Your task to perform on an android device: open app "Instagram" (install if not already installed) and go to login screen Image 0: 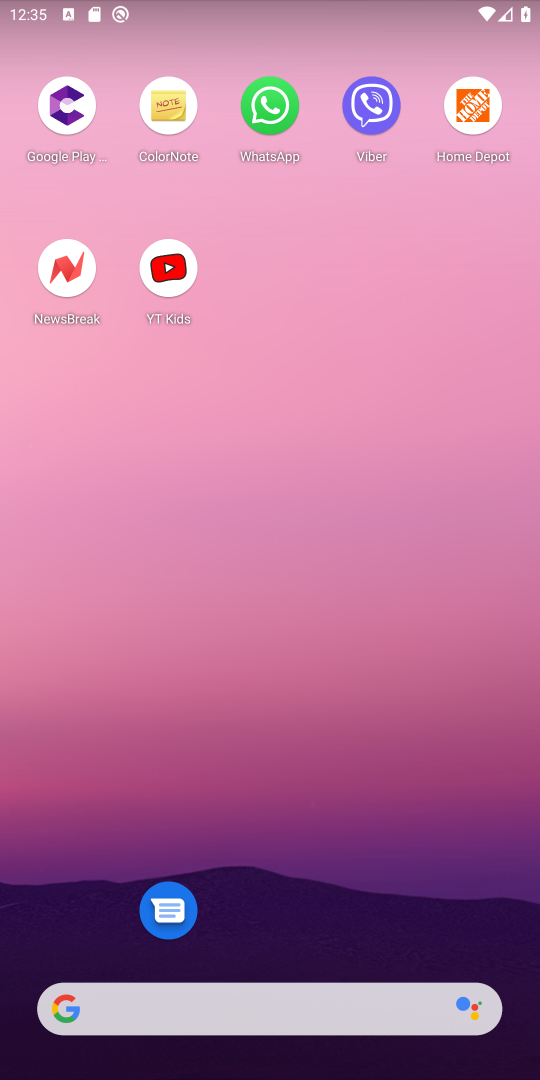
Step 0: drag from (293, 876) to (315, 62)
Your task to perform on an android device: open app "Instagram" (install if not already installed) and go to login screen Image 1: 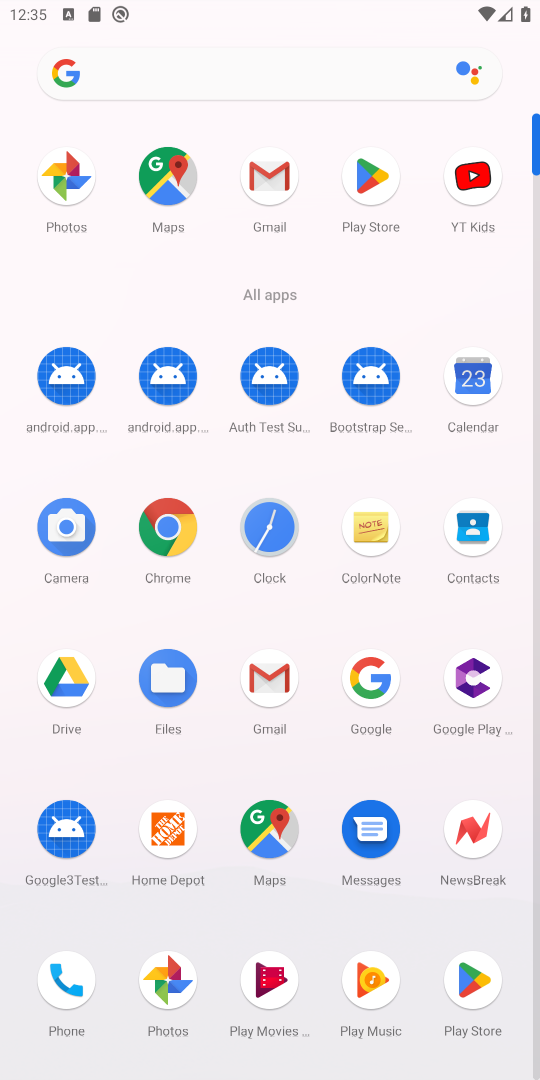
Step 1: click (368, 207)
Your task to perform on an android device: open app "Instagram" (install if not already installed) and go to login screen Image 2: 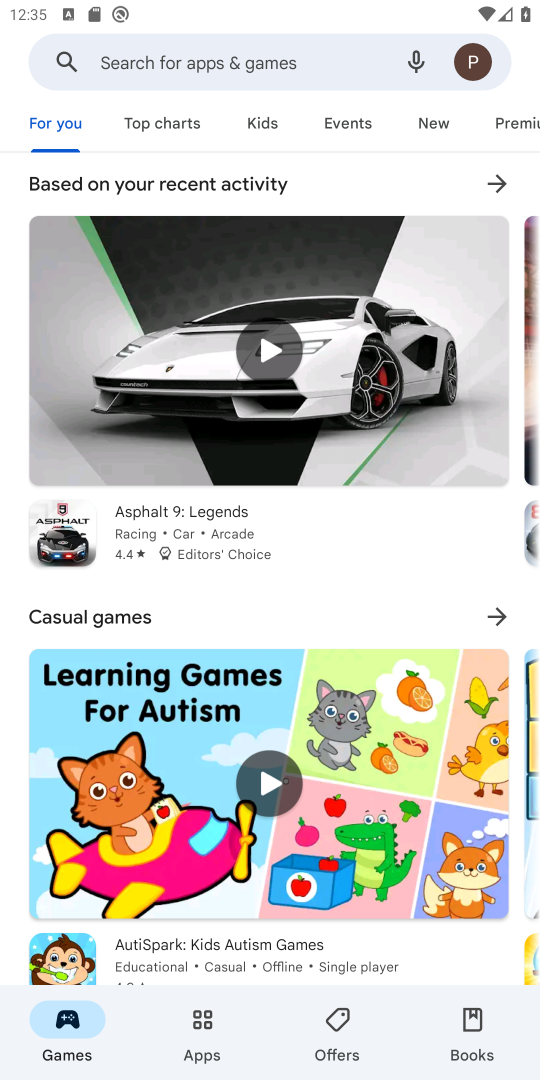
Step 2: click (282, 78)
Your task to perform on an android device: open app "Instagram" (install if not already installed) and go to login screen Image 3: 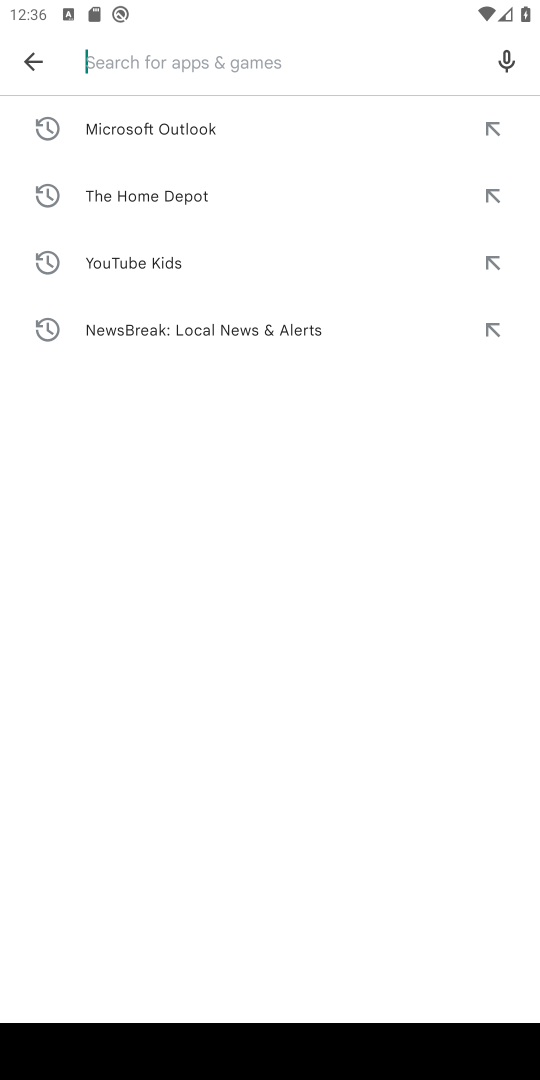
Step 3: type "Instagram"
Your task to perform on an android device: open app "Instagram" (install if not already installed) and go to login screen Image 4: 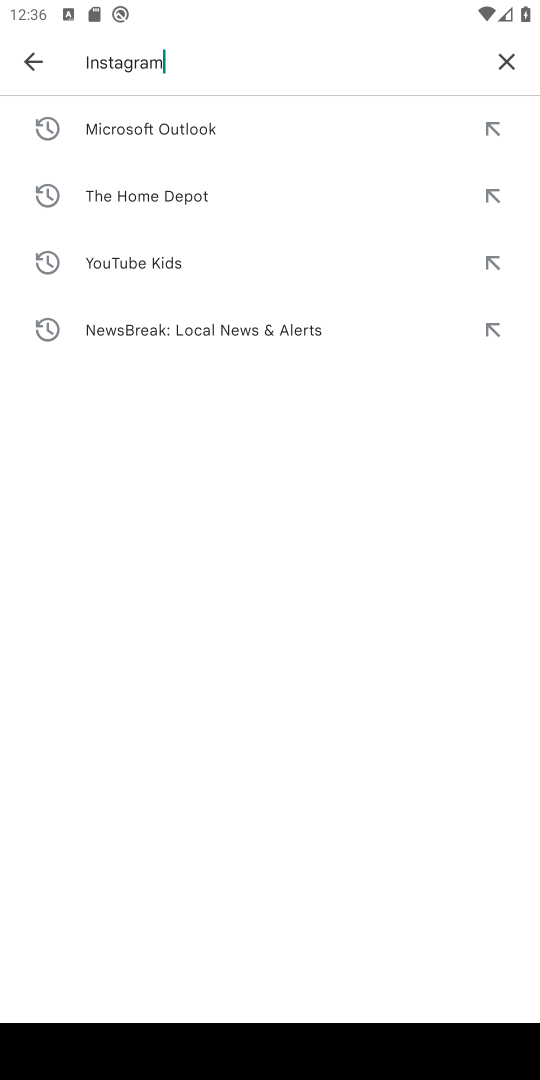
Step 4: press enter
Your task to perform on an android device: open app "Instagram" (install if not already installed) and go to login screen Image 5: 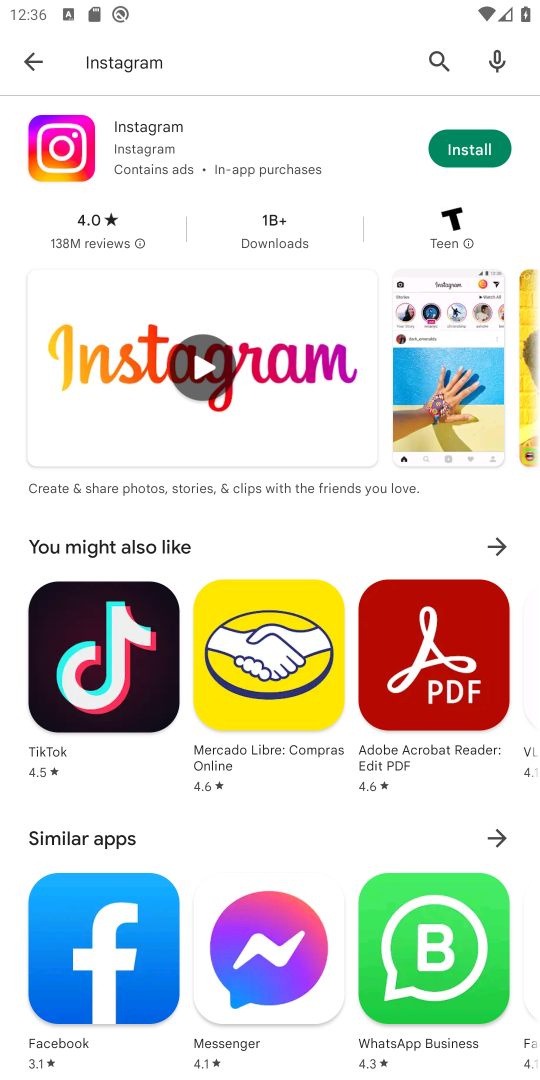
Step 5: click (473, 154)
Your task to perform on an android device: open app "Instagram" (install if not already installed) and go to login screen Image 6: 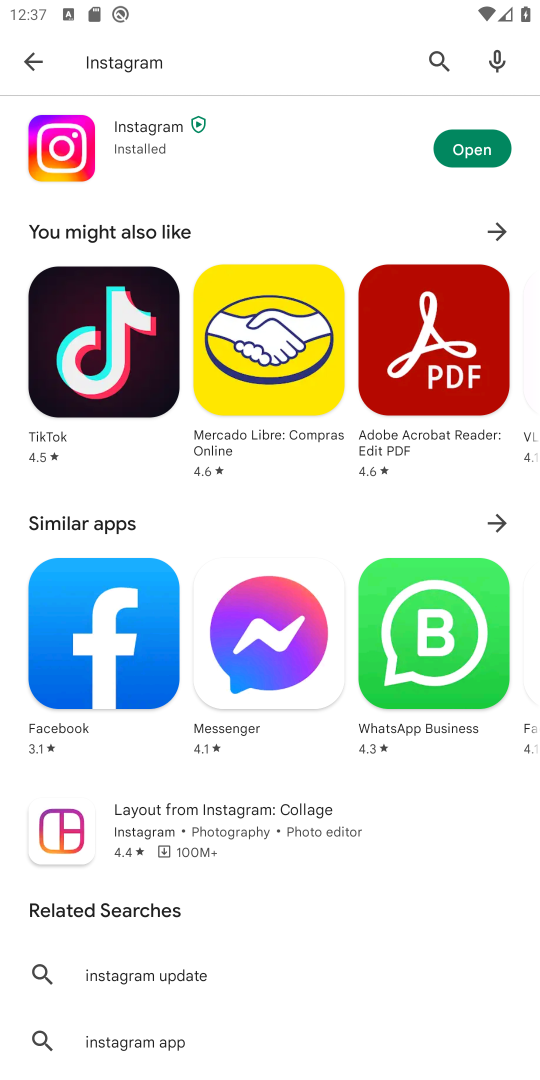
Step 6: click (479, 159)
Your task to perform on an android device: open app "Instagram" (install if not already installed) and go to login screen Image 7: 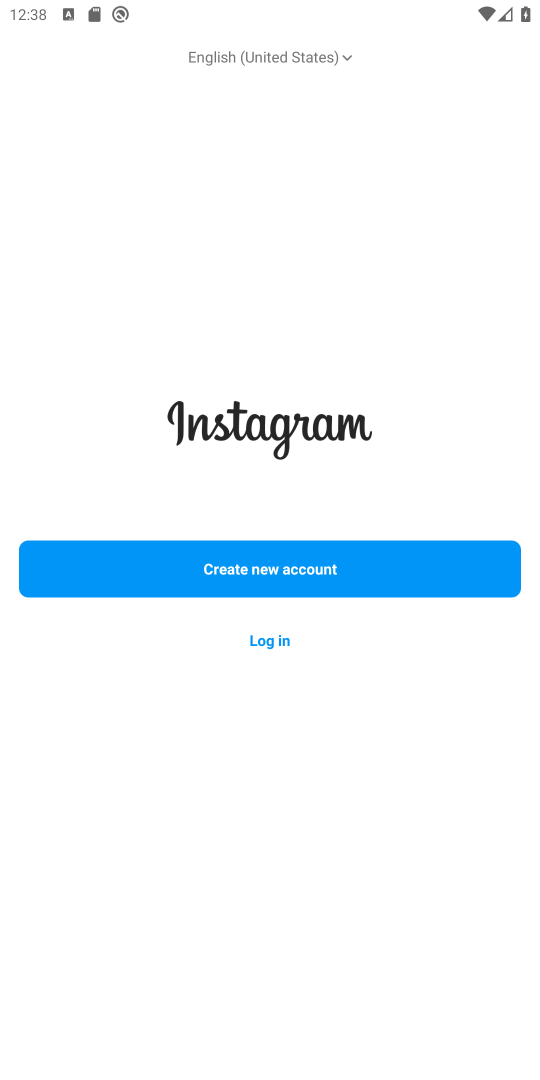
Step 7: click (271, 640)
Your task to perform on an android device: open app "Instagram" (install if not already installed) and go to login screen Image 8: 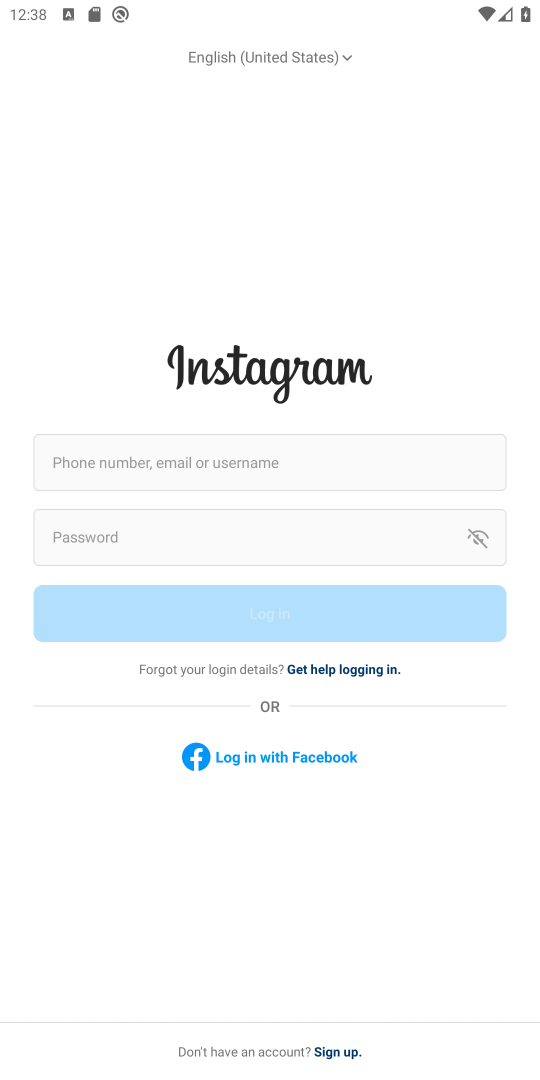
Step 8: task complete